Your task to perform on an android device: open a new tab in the chrome app Image 0: 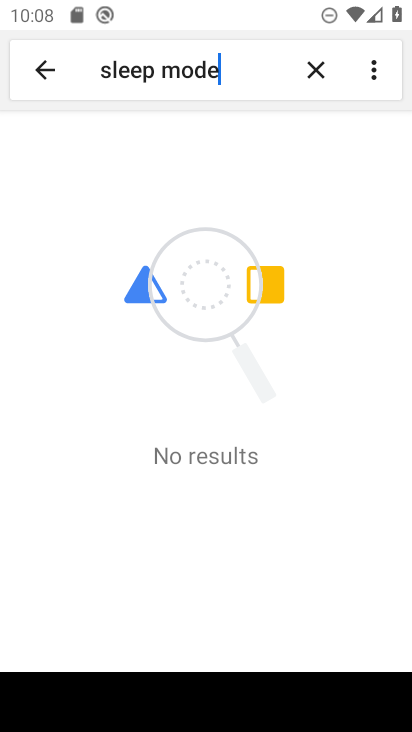
Step 0: press home button
Your task to perform on an android device: open a new tab in the chrome app Image 1: 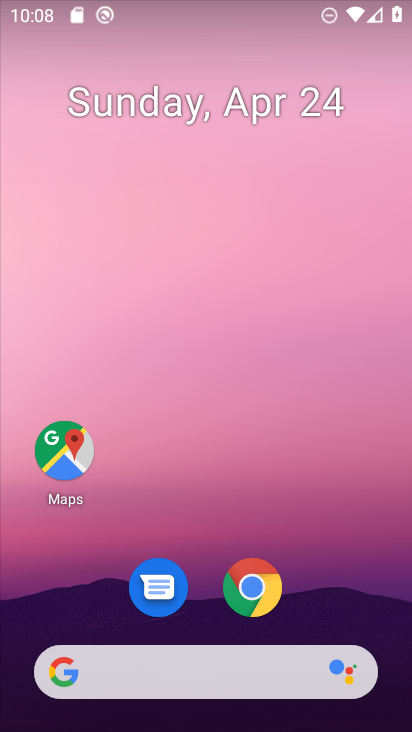
Step 1: drag from (367, 590) to (339, 44)
Your task to perform on an android device: open a new tab in the chrome app Image 2: 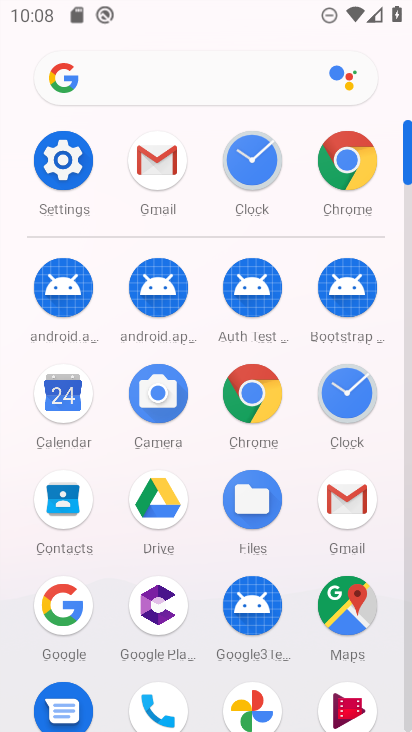
Step 2: click (262, 396)
Your task to perform on an android device: open a new tab in the chrome app Image 3: 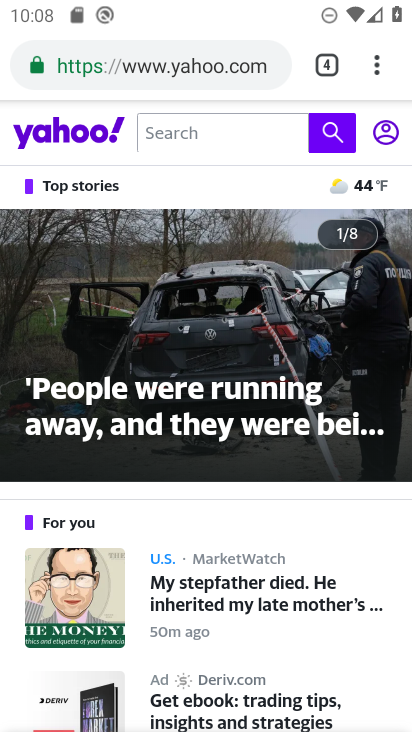
Step 3: click (325, 72)
Your task to perform on an android device: open a new tab in the chrome app Image 4: 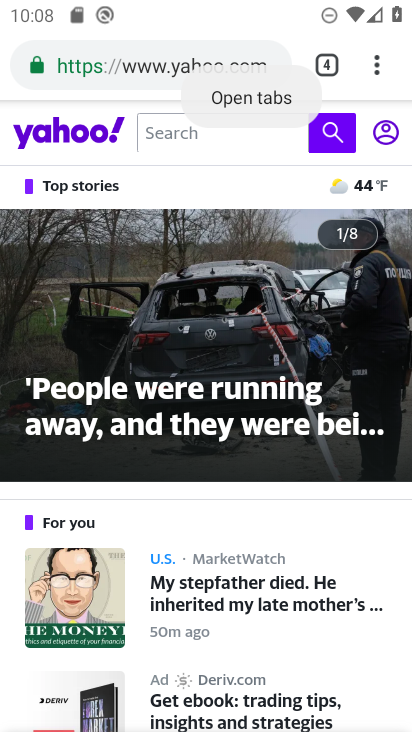
Step 4: click (325, 60)
Your task to perform on an android device: open a new tab in the chrome app Image 5: 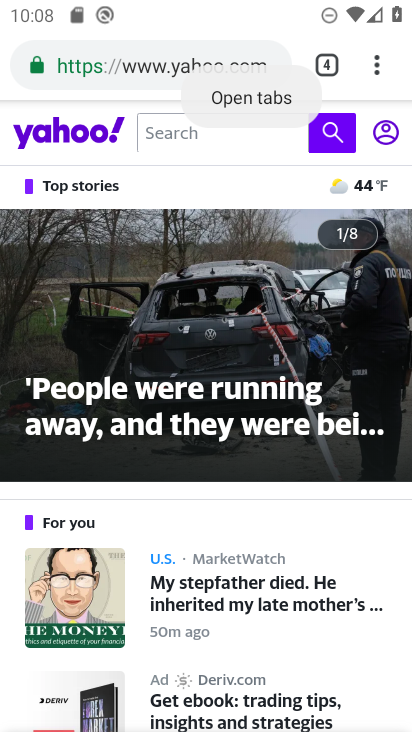
Step 5: click (318, 55)
Your task to perform on an android device: open a new tab in the chrome app Image 6: 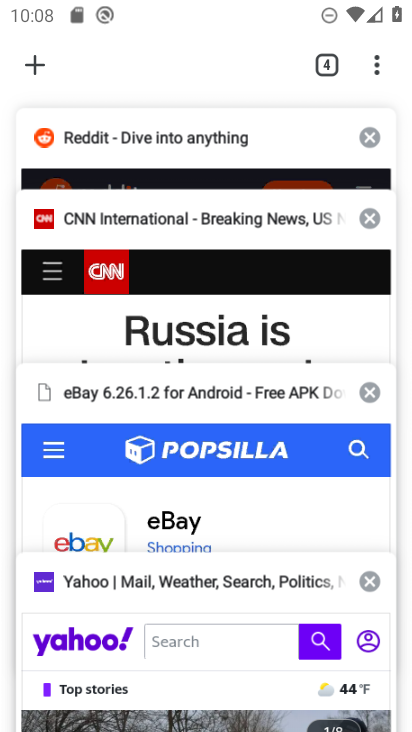
Step 6: click (32, 69)
Your task to perform on an android device: open a new tab in the chrome app Image 7: 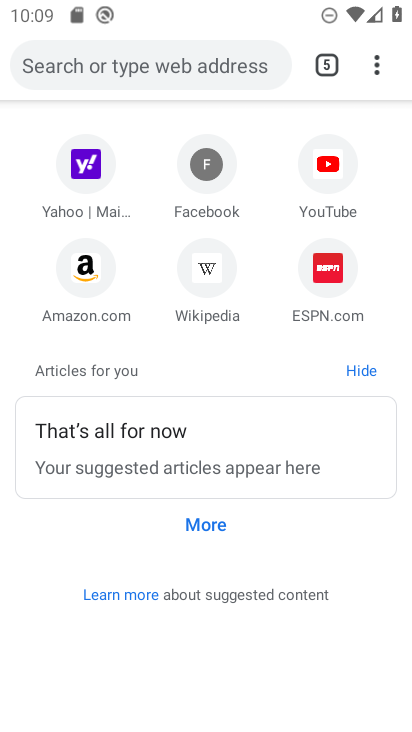
Step 7: task complete